Your task to perform on an android device: turn off priority inbox in the gmail app Image 0: 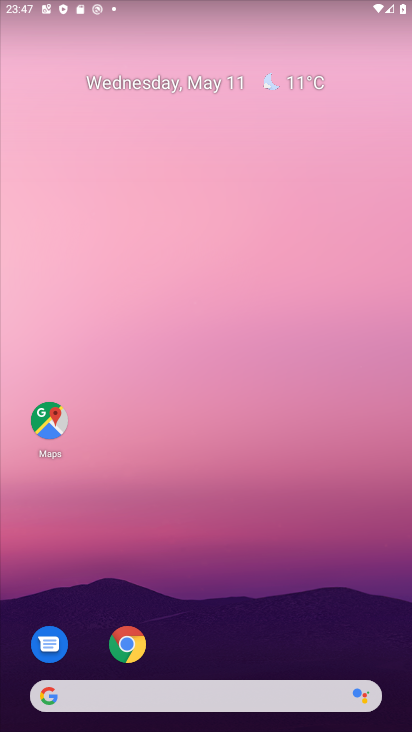
Step 0: drag from (217, 647) to (234, 89)
Your task to perform on an android device: turn off priority inbox in the gmail app Image 1: 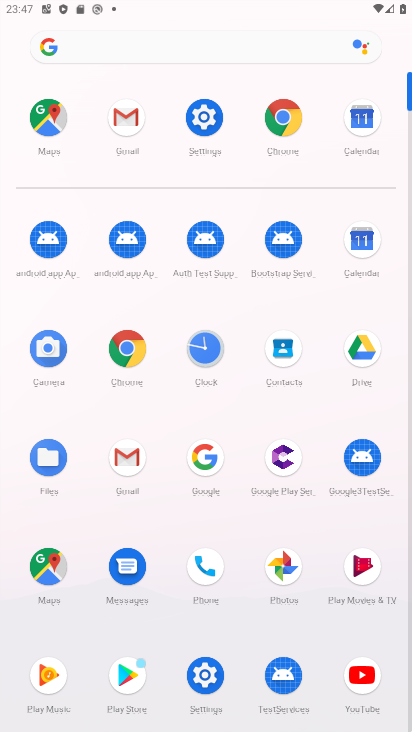
Step 1: click (123, 115)
Your task to perform on an android device: turn off priority inbox in the gmail app Image 2: 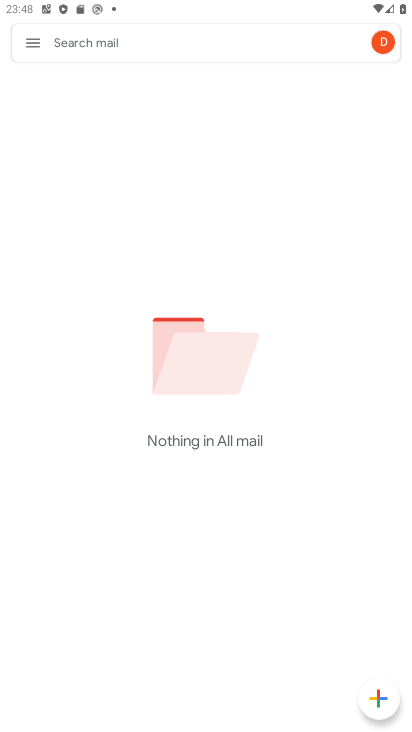
Step 2: click (39, 41)
Your task to perform on an android device: turn off priority inbox in the gmail app Image 3: 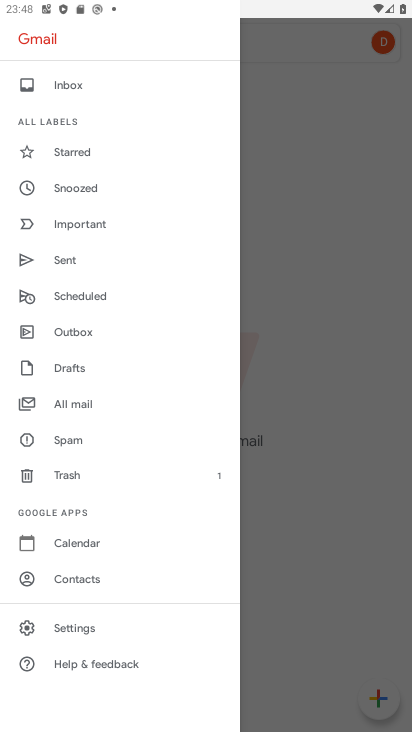
Step 3: click (89, 626)
Your task to perform on an android device: turn off priority inbox in the gmail app Image 4: 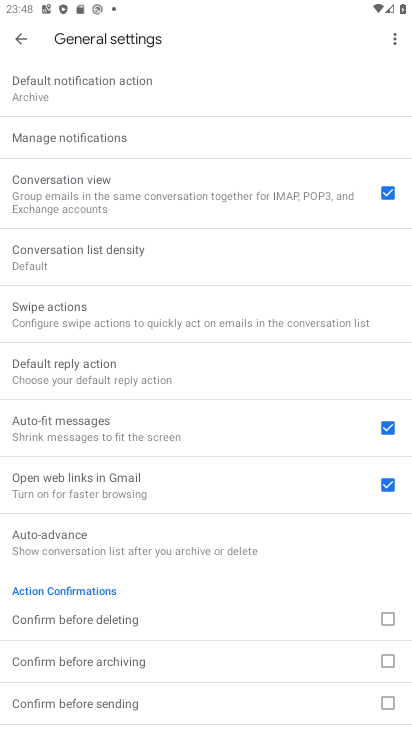
Step 4: click (21, 37)
Your task to perform on an android device: turn off priority inbox in the gmail app Image 5: 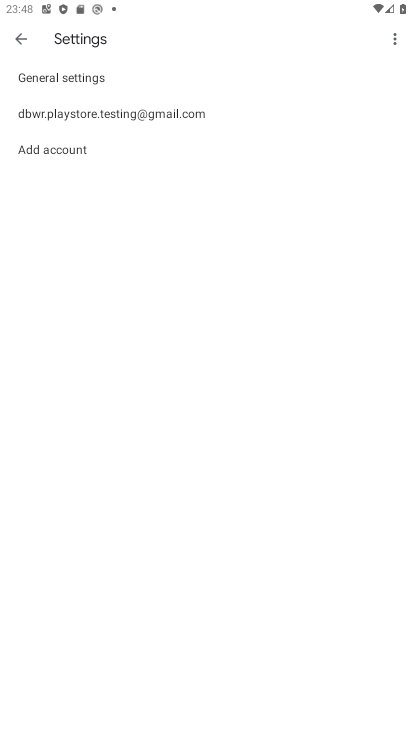
Step 5: click (108, 119)
Your task to perform on an android device: turn off priority inbox in the gmail app Image 6: 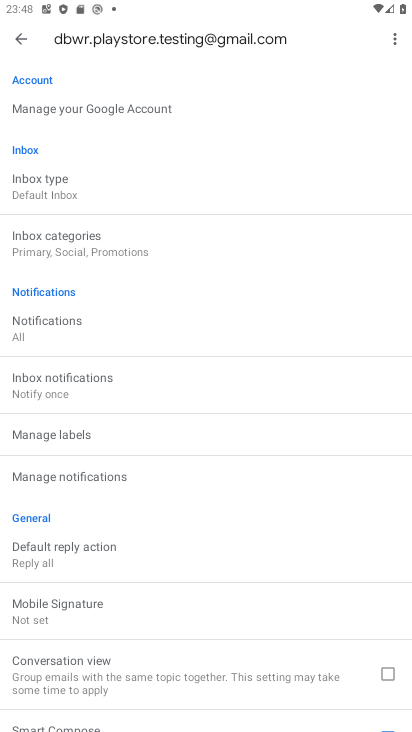
Step 6: click (82, 180)
Your task to perform on an android device: turn off priority inbox in the gmail app Image 7: 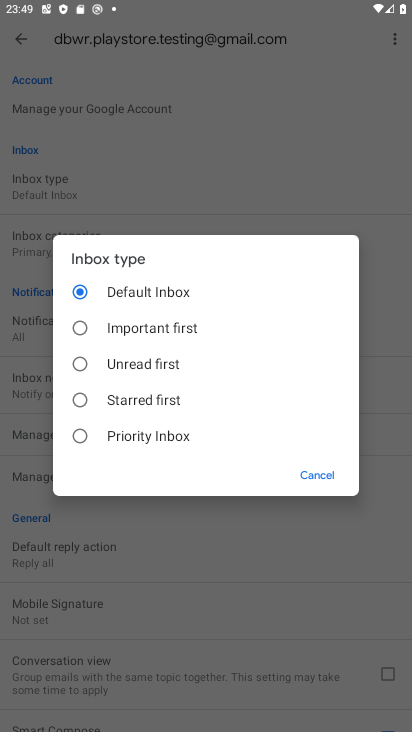
Step 7: click (76, 401)
Your task to perform on an android device: turn off priority inbox in the gmail app Image 8: 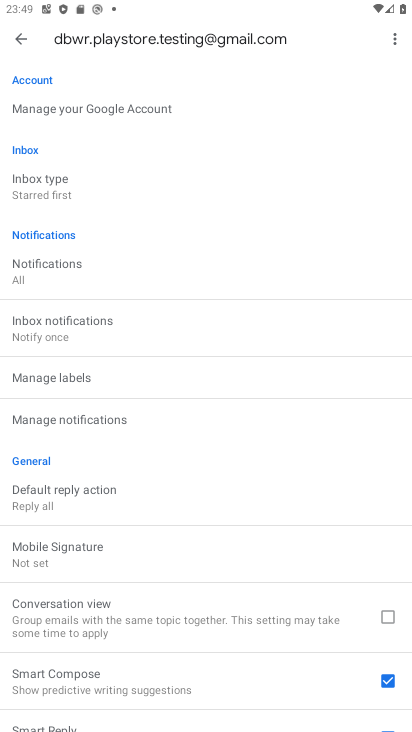
Step 8: task complete